Your task to perform on an android device: Show me recent news Image 0: 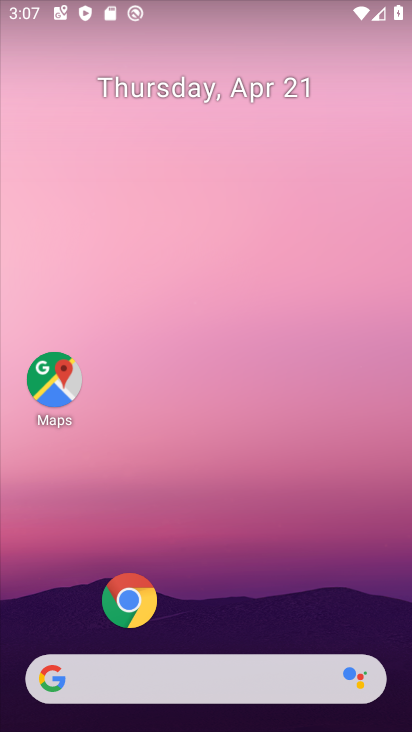
Step 0: click (111, 679)
Your task to perform on an android device: Show me recent news Image 1: 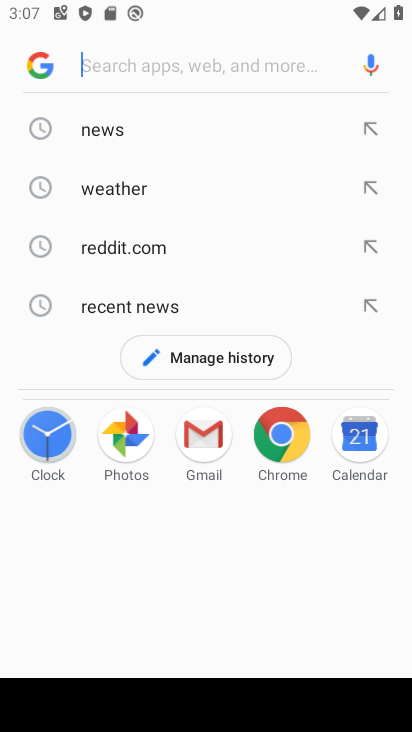
Step 1: click (103, 126)
Your task to perform on an android device: Show me recent news Image 2: 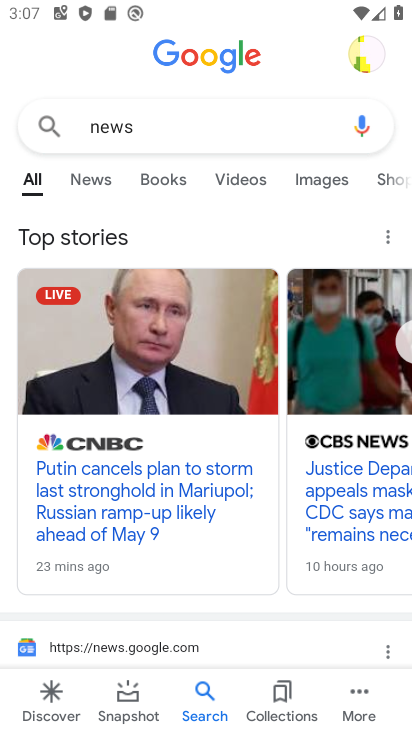
Step 2: click (90, 184)
Your task to perform on an android device: Show me recent news Image 3: 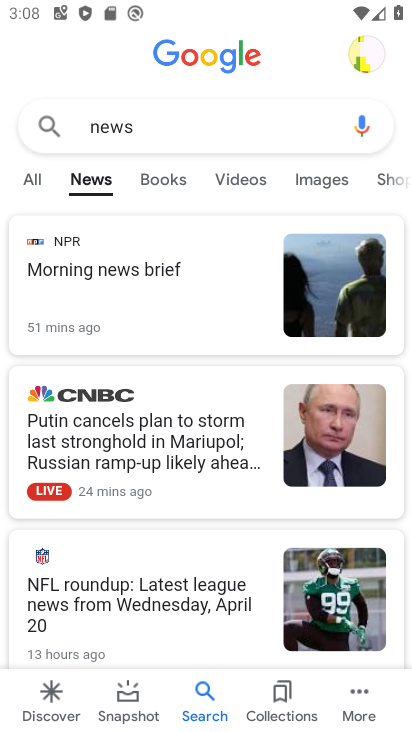
Step 3: task complete